Your task to perform on an android device: turn off improve location accuracy Image 0: 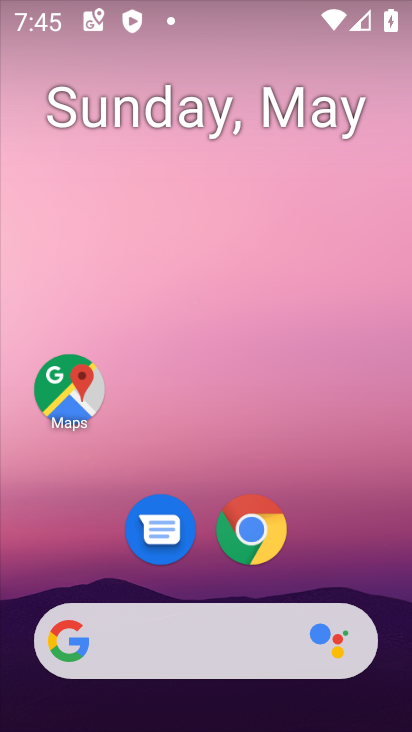
Step 0: drag from (346, 592) to (380, 9)
Your task to perform on an android device: turn off improve location accuracy Image 1: 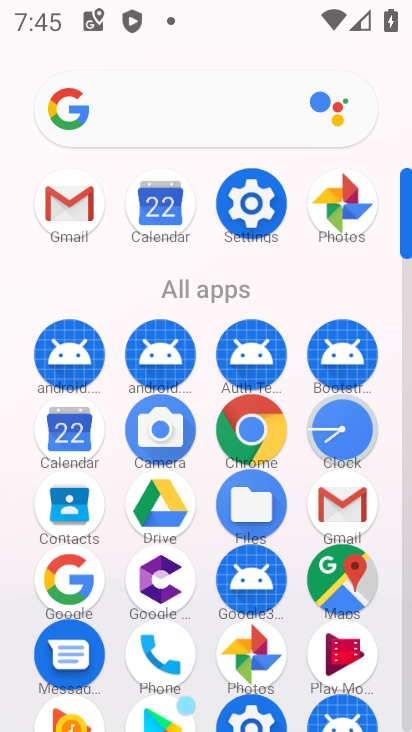
Step 1: click (243, 198)
Your task to perform on an android device: turn off improve location accuracy Image 2: 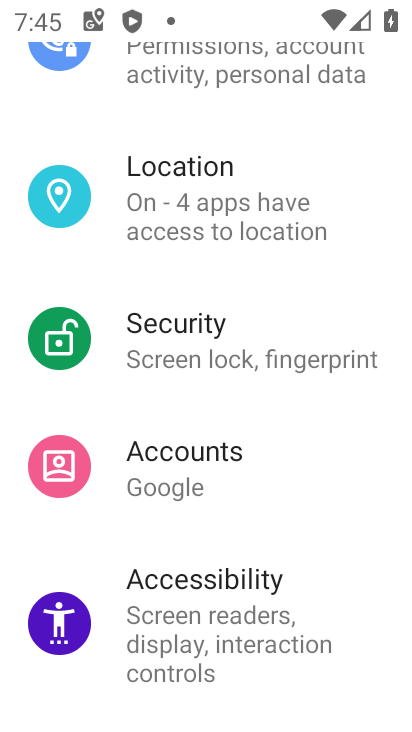
Step 2: click (162, 242)
Your task to perform on an android device: turn off improve location accuracy Image 3: 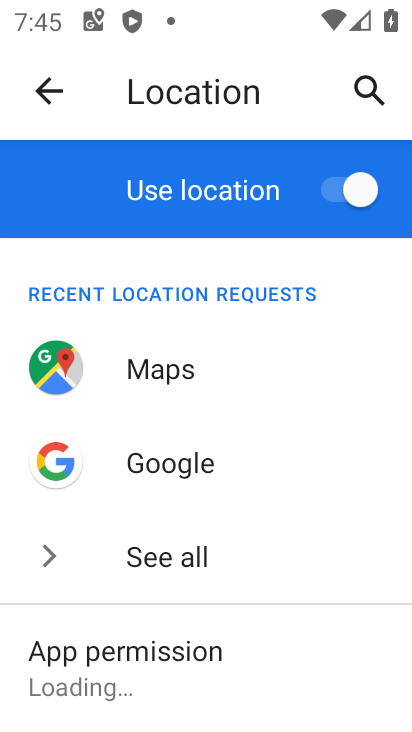
Step 3: drag from (221, 530) to (225, 66)
Your task to perform on an android device: turn off improve location accuracy Image 4: 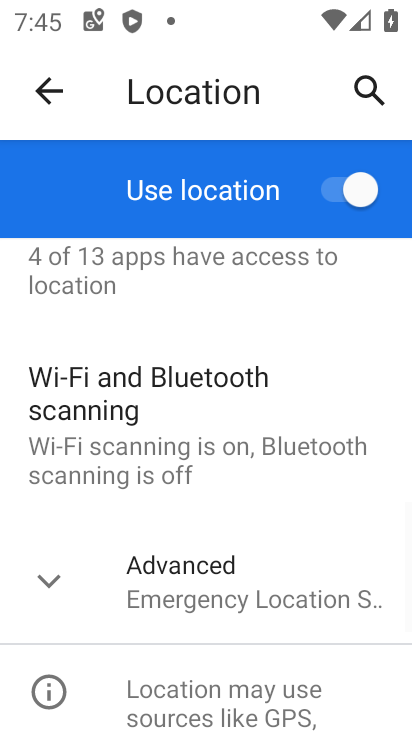
Step 4: click (52, 559)
Your task to perform on an android device: turn off improve location accuracy Image 5: 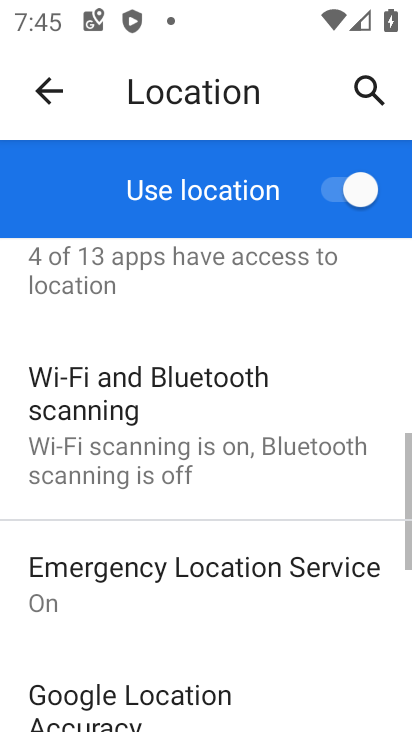
Step 5: drag from (166, 586) to (170, 231)
Your task to perform on an android device: turn off improve location accuracy Image 6: 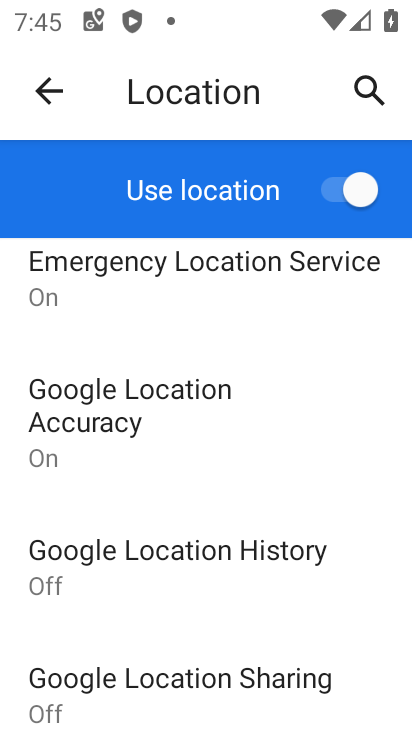
Step 6: click (124, 412)
Your task to perform on an android device: turn off improve location accuracy Image 7: 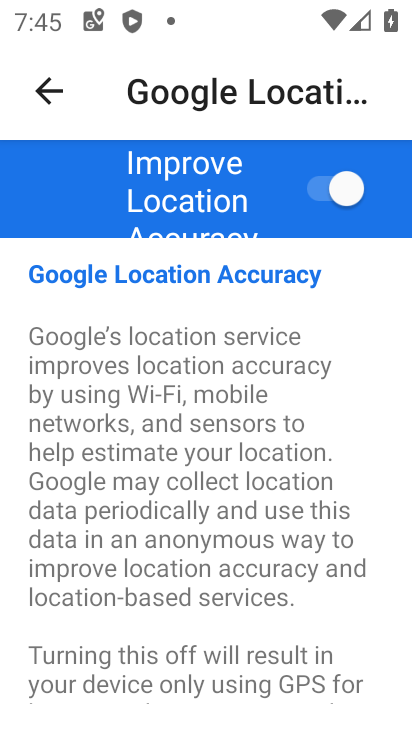
Step 7: click (352, 198)
Your task to perform on an android device: turn off improve location accuracy Image 8: 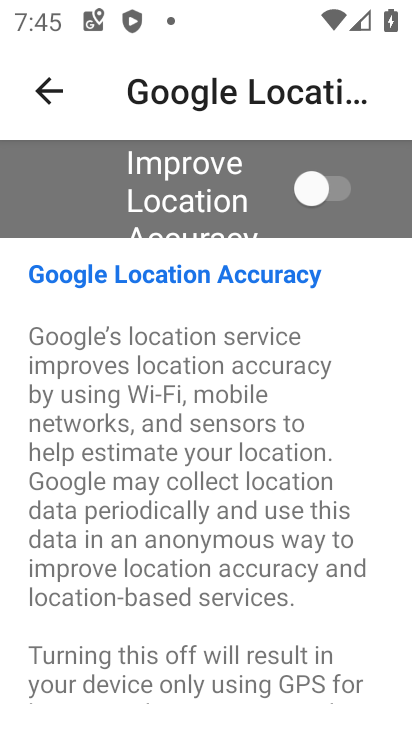
Step 8: task complete